Your task to perform on an android device: Clear the shopping cart on newegg. Search for "dell xps" on newegg, select the first entry, and add it to the cart. Image 0: 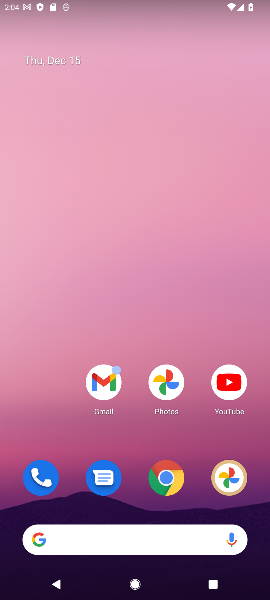
Step 0: click (168, 479)
Your task to perform on an android device: Clear the shopping cart on newegg. Search for "dell xps" on newegg, select the first entry, and add it to the cart. Image 1: 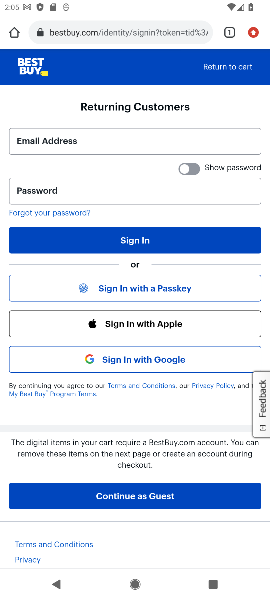
Step 1: click (84, 34)
Your task to perform on an android device: Clear the shopping cart on newegg. Search for "dell xps" on newegg, select the first entry, and add it to the cart. Image 2: 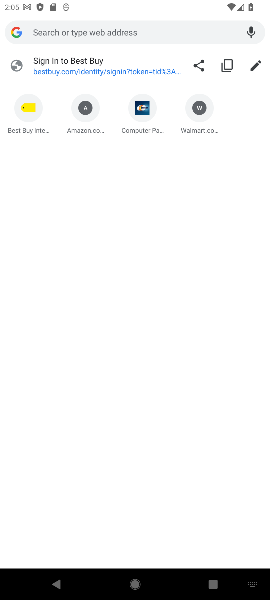
Step 2: click (144, 123)
Your task to perform on an android device: Clear the shopping cart on newegg. Search for "dell xps" on newegg, select the first entry, and add it to the cart. Image 3: 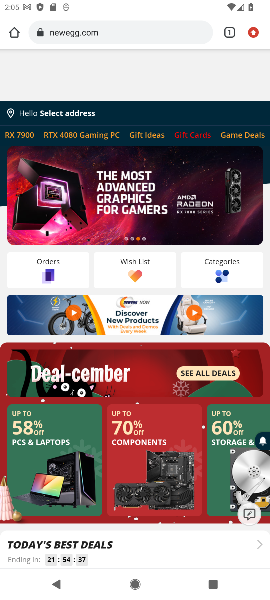
Step 3: click (216, 65)
Your task to perform on an android device: Clear the shopping cart on newegg. Search for "dell xps" on newegg, select the first entry, and add it to the cart. Image 4: 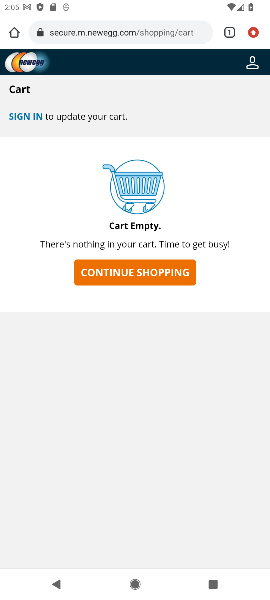
Step 4: click (116, 274)
Your task to perform on an android device: Clear the shopping cart on newegg. Search for "dell xps" on newegg, select the first entry, and add it to the cart. Image 5: 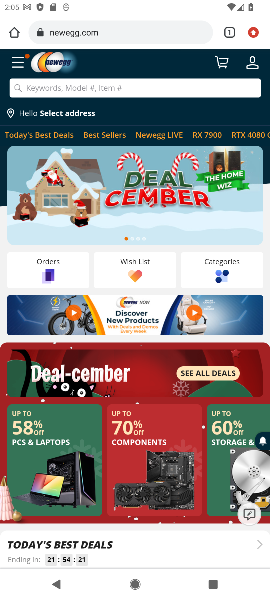
Step 5: click (86, 89)
Your task to perform on an android device: Clear the shopping cart on newegg. Search for "dell xps" on newegg, select the first entry, and add it to the cart. Image 6: 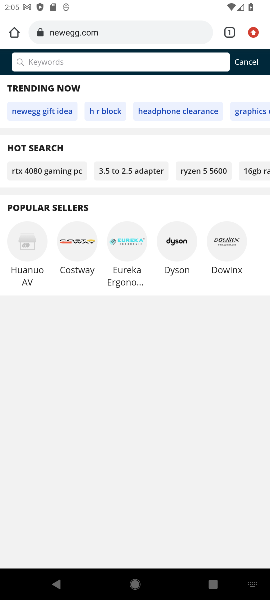
Step 6: type "dell xps"
Your task to perform on an android device: Clear the shopping cart on newegg. Search for "dell xps" on newegg, select the first entry, and add it to the cart. Image 7: 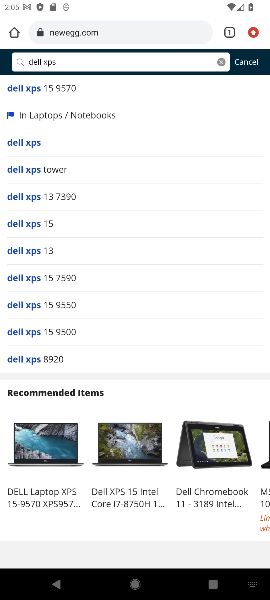
Step 7: click (34, 146)
Your task to perform on an android device: Clear the shopping cart on newegg. Search for "dell xps" on newegg, select the first entry, and add it to the cart. Image 8: 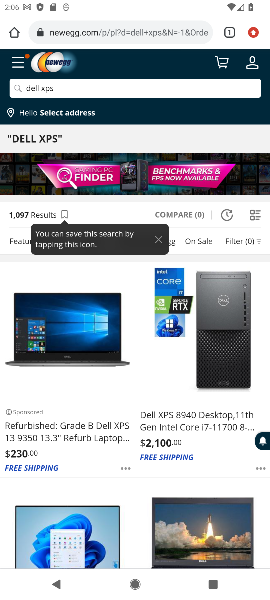
Step 8: click (50, 422)
Your task to perform on an android device: Clear the shopping cart on newegg. Search for "dell xps" on newegg, select the first entry, and add it to the cart. Image 9: 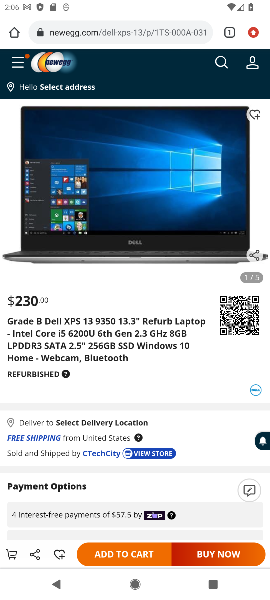
Step 9: click (108, 553)
Your task to perform on an android device: Clear the shopping cart on newegg. Search for "dell xps" on newegg, select the first entry, and add it to the cart. Image 10: 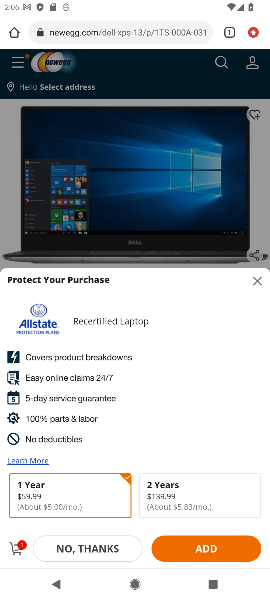
Step 10: task complete